Your task to perform on an android device: Go to ESPN.com Image 0: 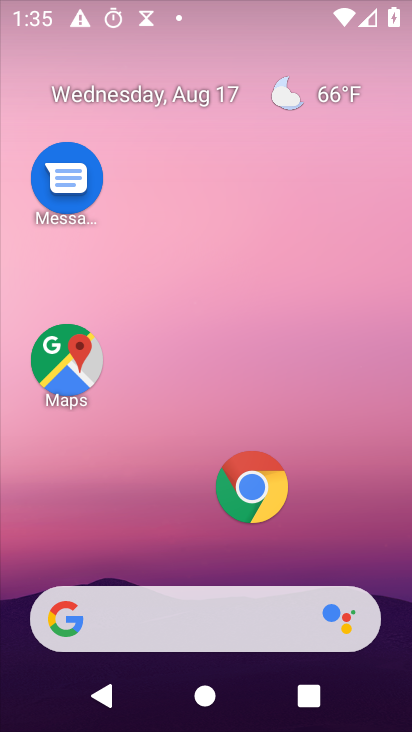
Step 0: press home button
Your task to perform on an android device: Go to ESPN.com Image 1: 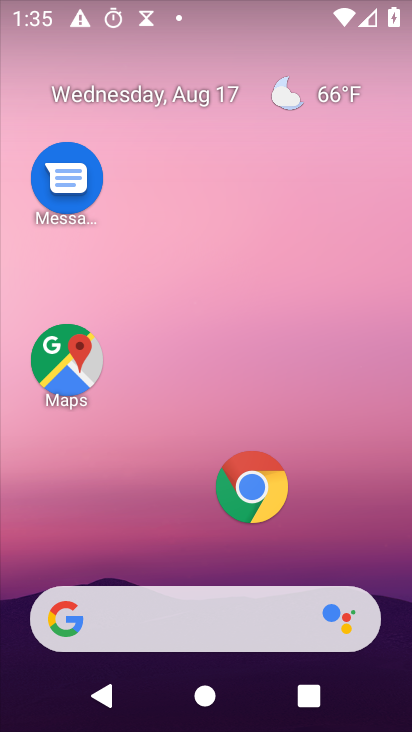
Step 1: click (74, 632)
Your task to perform on an android device: Go to ESPN.com Image 2: 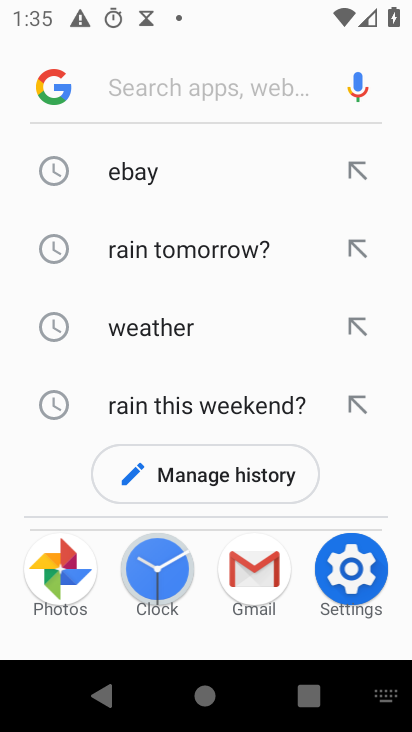
Step 2: type " ESPN.com"
Your task to perform on an android device: Go to ESPN.com Image 3: 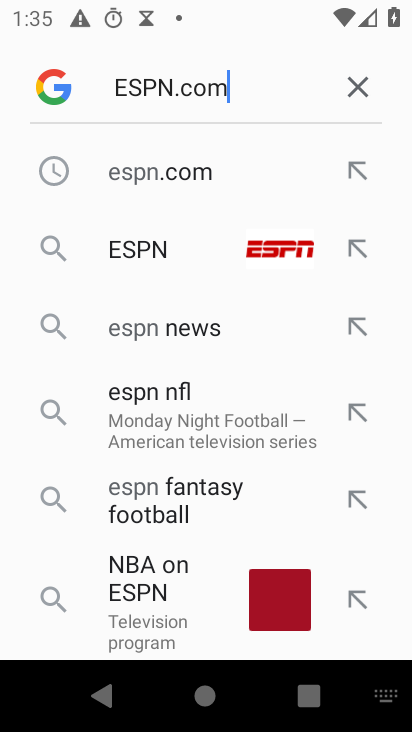
Step 3: press enter
Your task to perform on an android device: Go to ESPN.com Image 4: 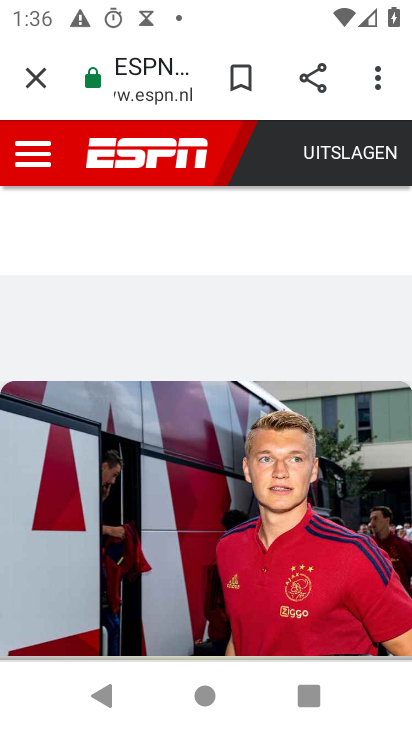
Step 4: task complete